Your task to perform on an android device: open device folders in google photos Image 0: 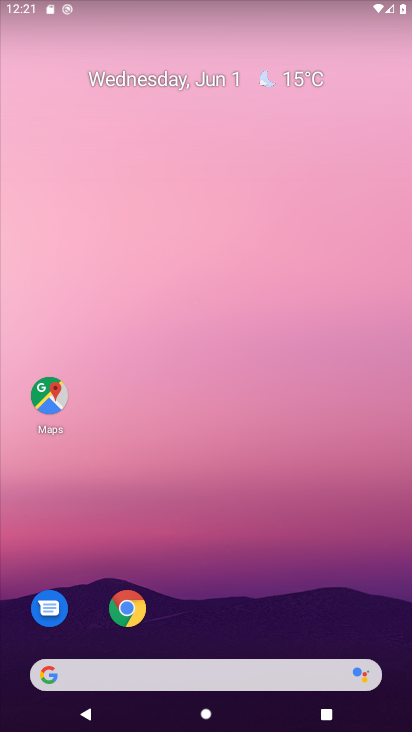
Step 0: drag from (239, 620) to (295, 120)
Your task to perform on an android device: open device folders in google photos Image 1: 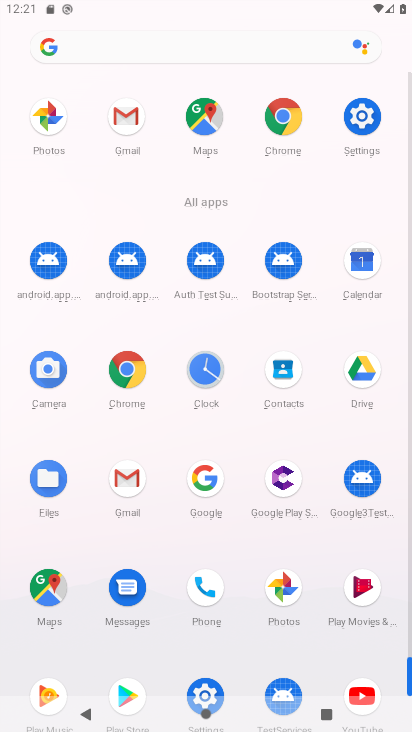
Step 1: click (284, 603)
Your task to perform on an android device: open device folders in google photos Image 2: 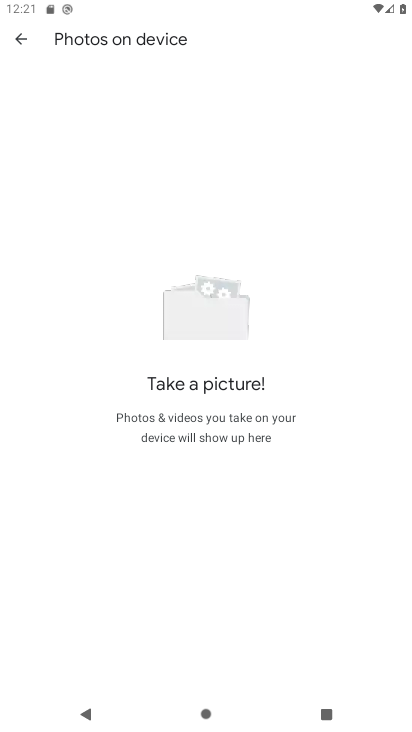
Step 2: click (20, 42)
Your task to perform on an android device: open device folders in google photos Image 3: 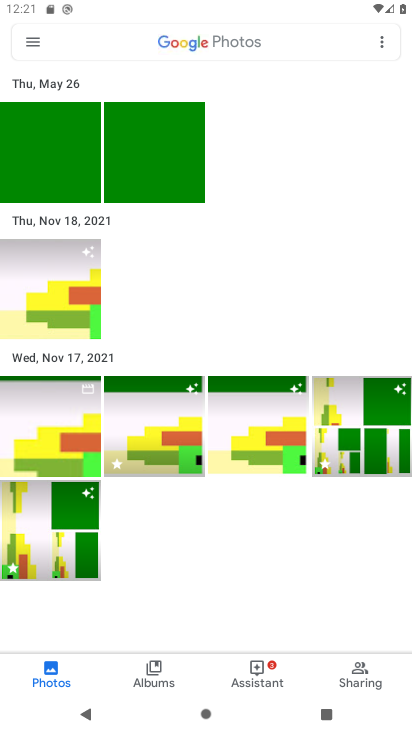
Step 3: click (33, 38)
Your task to perform on an android device: open device folders in google photos Image 4: 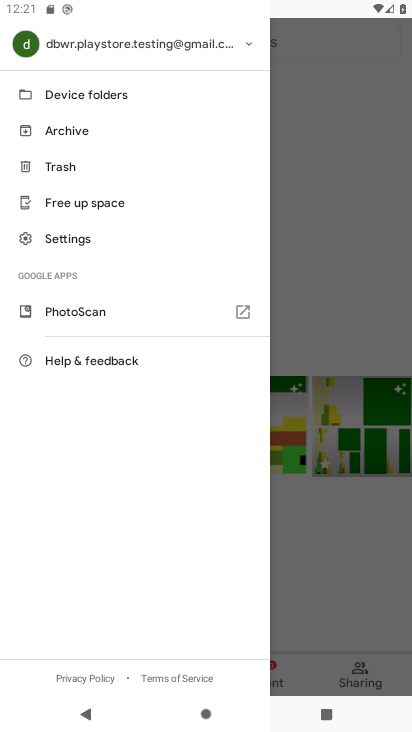
Step 4: click (103, 89)
Your task to perform on an android device: open device folders in google photos Image 5: 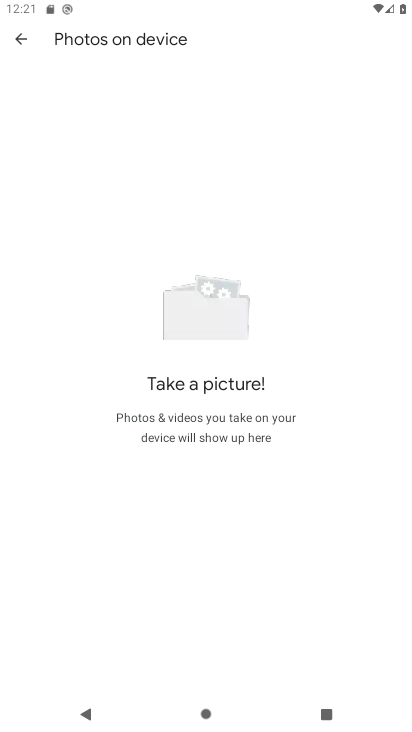
Step 5: task complete